Your task to perform on an android device: delete location history Image 0: 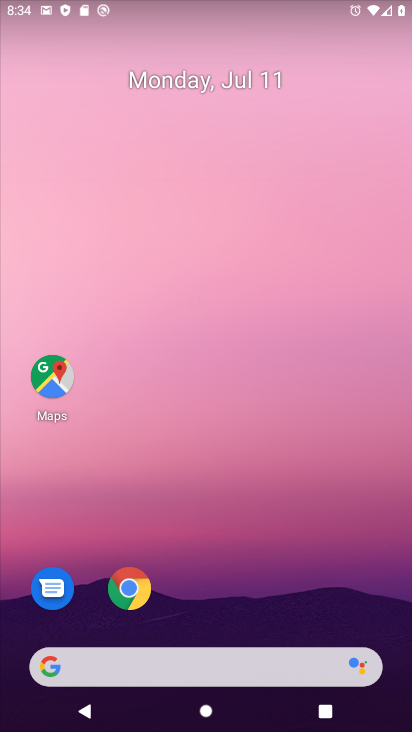
Step 0: click (49, 390)
Your task to perform on an android device: delete location history Image 1: 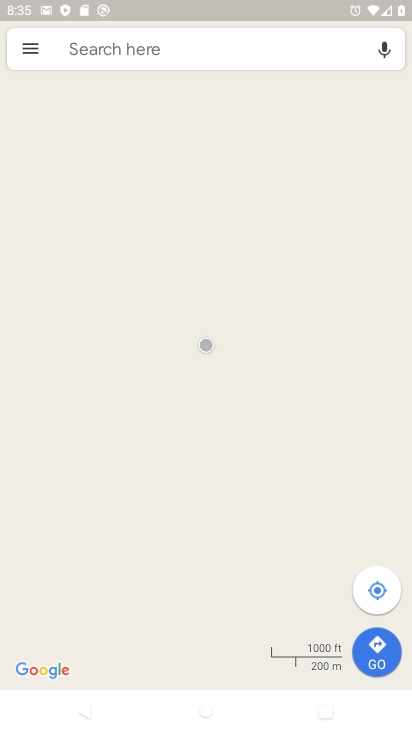
Step 1: click (32, 42)
Your task to perform on an android device: delete location history Image 2: 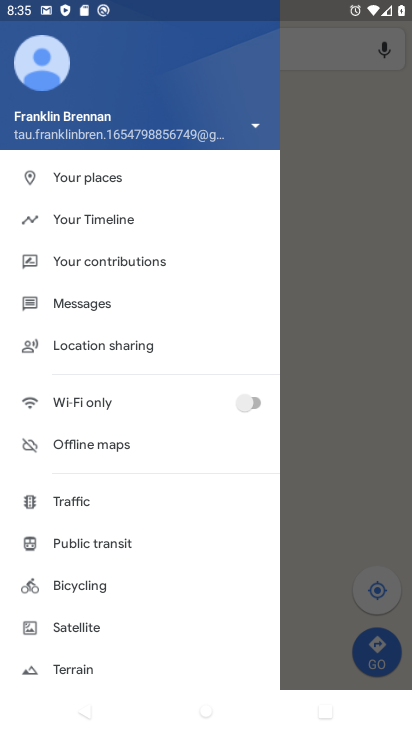
Step 2: click (105, 212)
Your task to perform on an android device: delete location history Image 3: 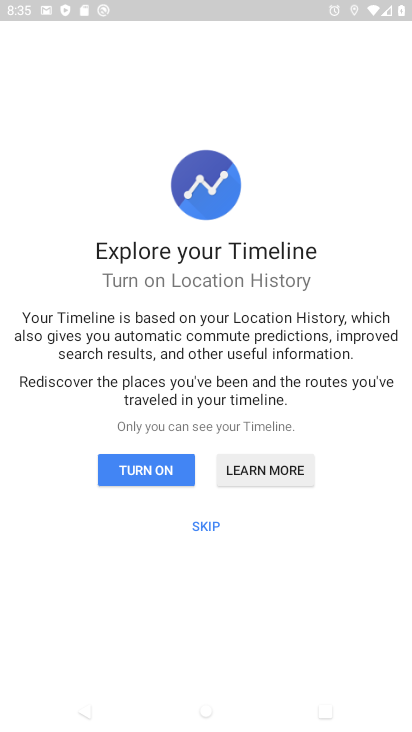
Step 3: click (214, 528)
Your task to perform on an android device: delete location history Image 4: 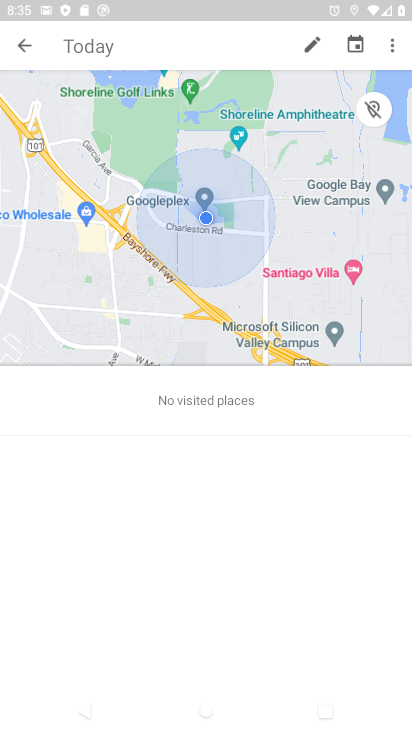
Step 4: click (389, 43)
Your task to perform on an android device: delete location history Image 5: 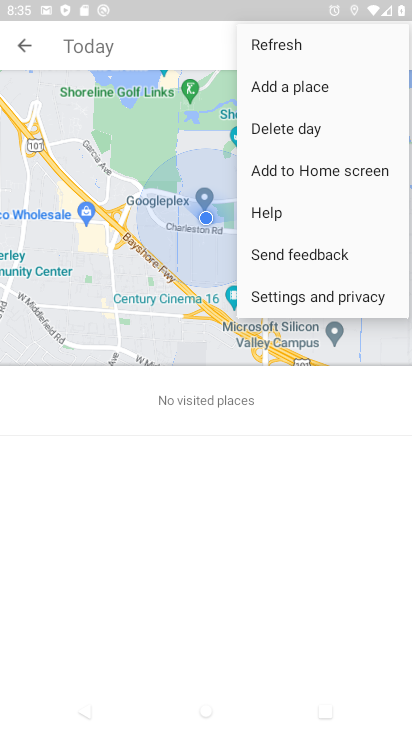
Step 5: click (287, 300)
Your task to perform on an android device: delete location history Image 6: 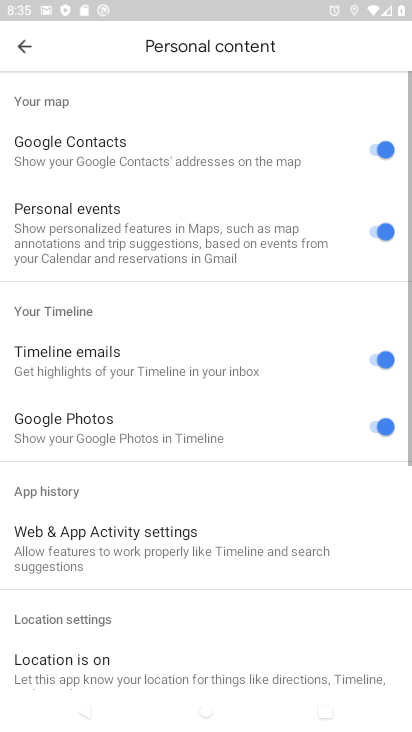
Step 6: drag from (140, 636) to (309, 196)
Your task to perform on an android device: delete location history Image 7: 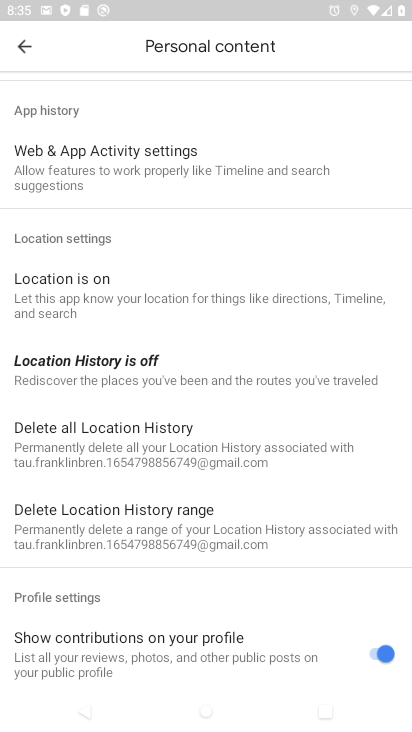
Step 7: click (120, 439)
Your task to perform on an android device: delete location history Image 8: 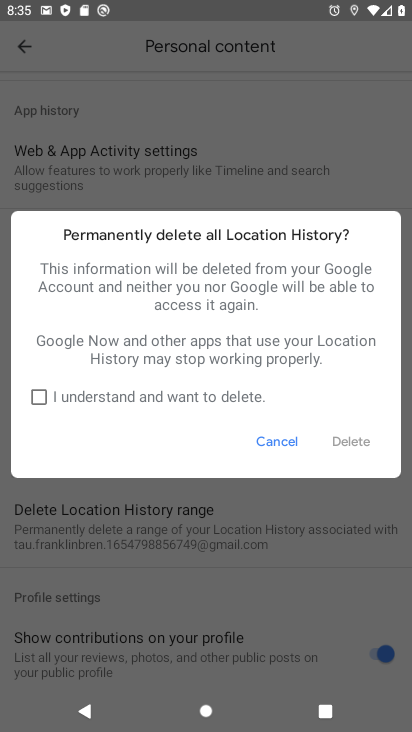
Step 8: click (38, 396)
Your task to perform on an android device: delete location history Image 9: 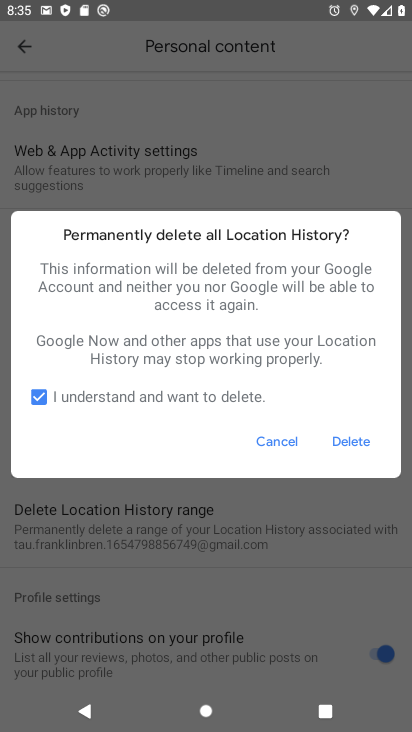
Step 9: click (355, 441)
Your task to perform on an android device: delete location history Image 10: 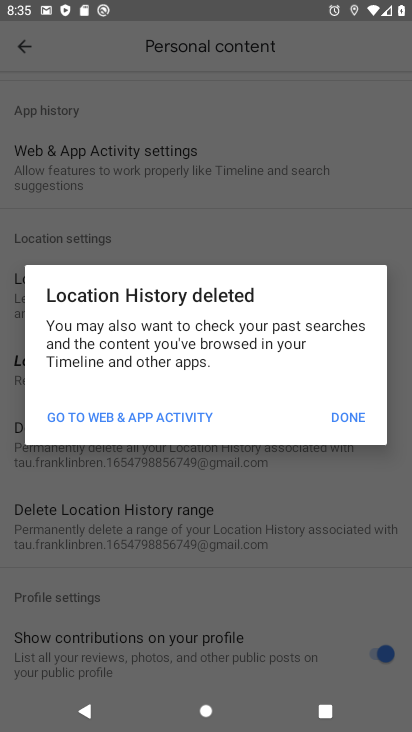
Step 10: click (348, 416)
Your task to perform on an android device: delete location history Image 11: 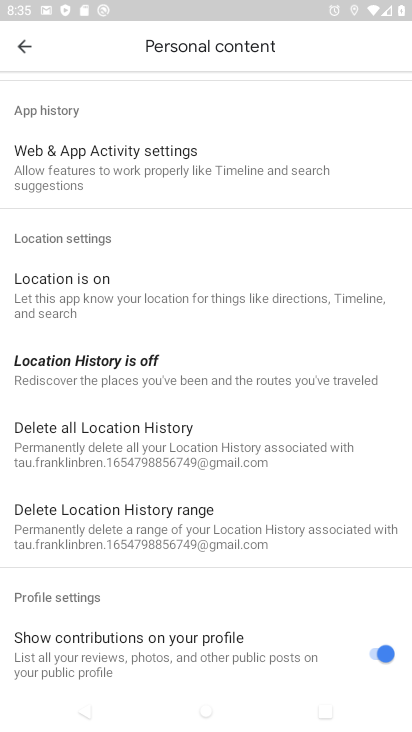
Step 11: task complete